Your task to perform on an android device: What is the recent news? Image 0: 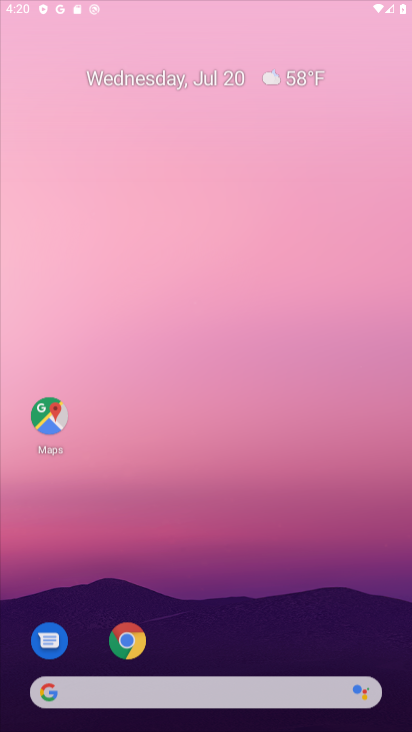
Step 0: press home button
Your task to perform on an android device: What is the recent news? Image 1: 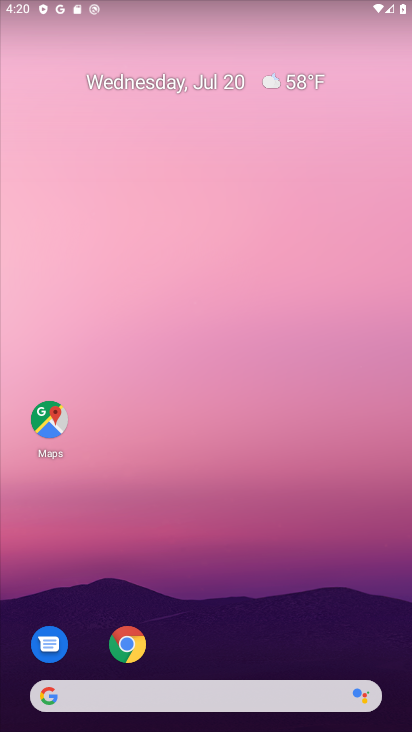
Step 1: click (46, 704)
Your task to perform on an android device: What is the recent news? Image 2: 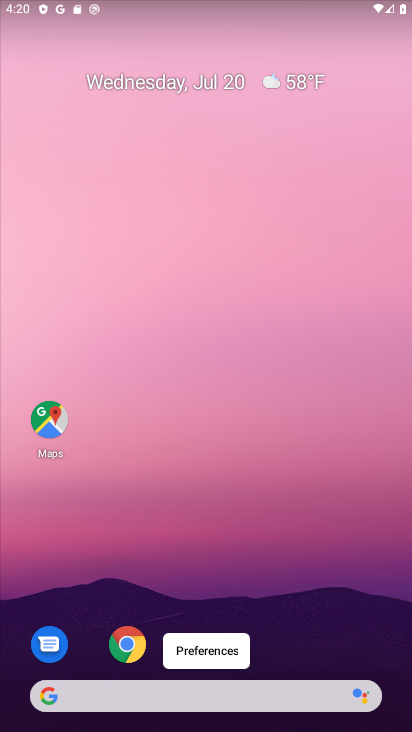
Step 2: click (46, 704)
Your task to perform on an android device: What is the recent news? Image 3: 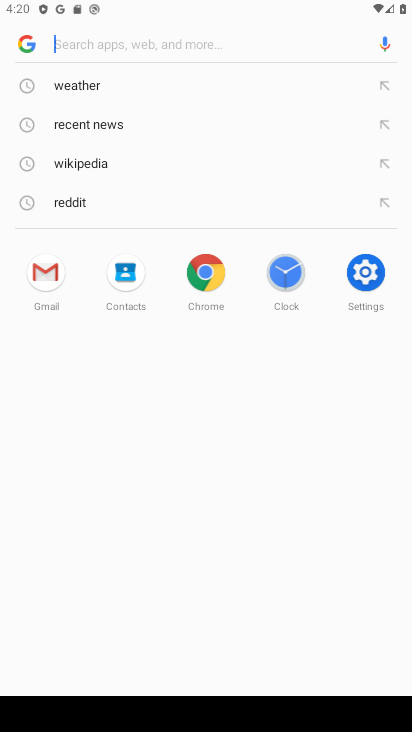
Step 3: click (87, 130)
Your task to perform on an android device: What is the recent news? Image 4: 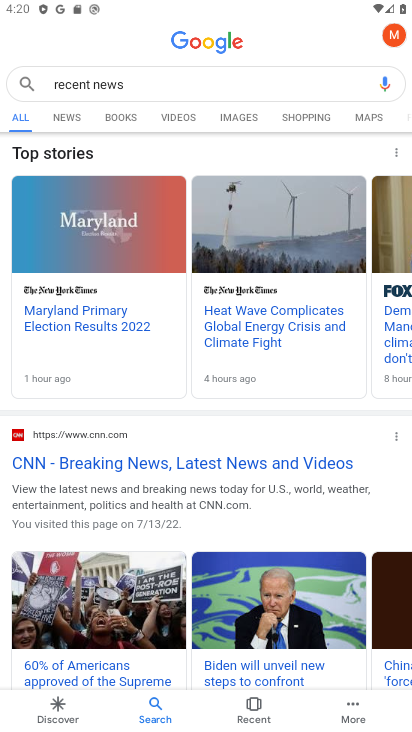
Step 4: task complete